Your task to perform on an android device: turn off sleep mode Image 0: 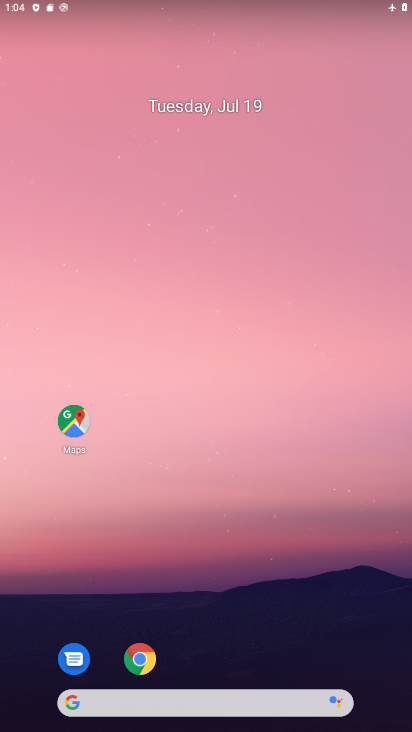
Step 0: drag from (258, 504) to (255, 0)
Your task to perform on an android device: turn off sleep mode Image 1: 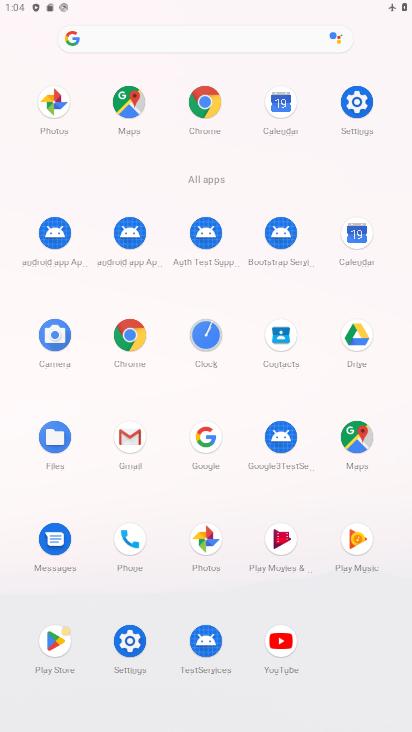
Step 1: click (346, 117)
Your task to perform on an android device: turn off sleep mode Image 2: 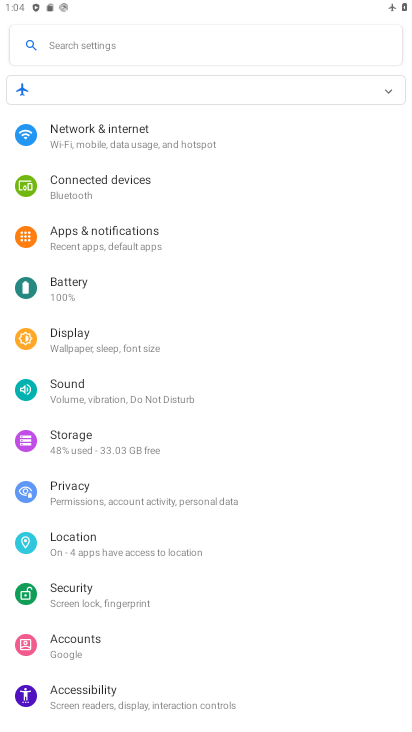
Step 2: click (80, 353)
Your task to perform on an android device: turn off sleep mode Image 3: 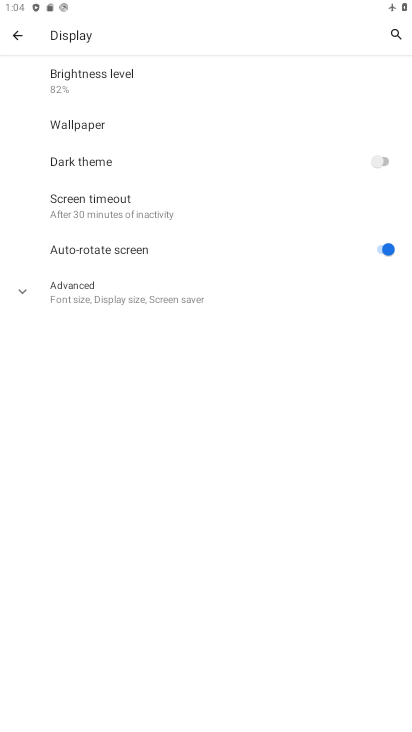
Step 3: task complete